Your task to perform on an android device: toggle translation in the chrome app Image 0: 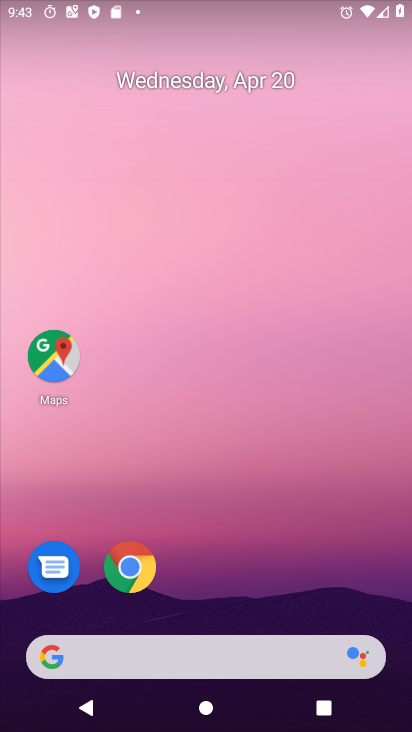
Step 0: drag from (228, 454) to (261, 200)
Your task to perform on an android device: toggle translation in the chrome app Image 1: 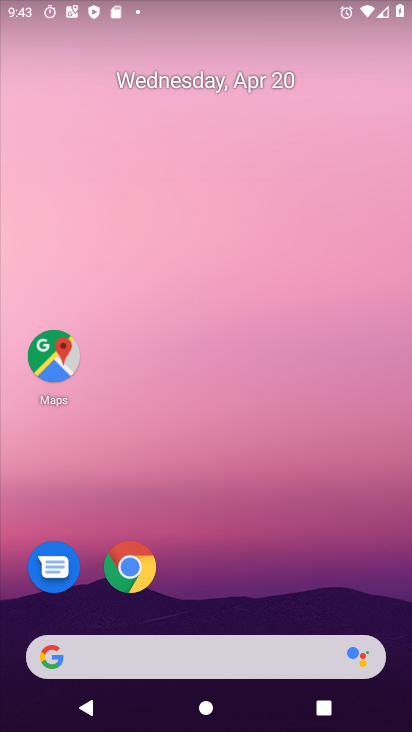
Step 1: drag from (258, 593) to (281, 160)
Your task to perform on an android device: toggle translation in the chrome app Image 2: 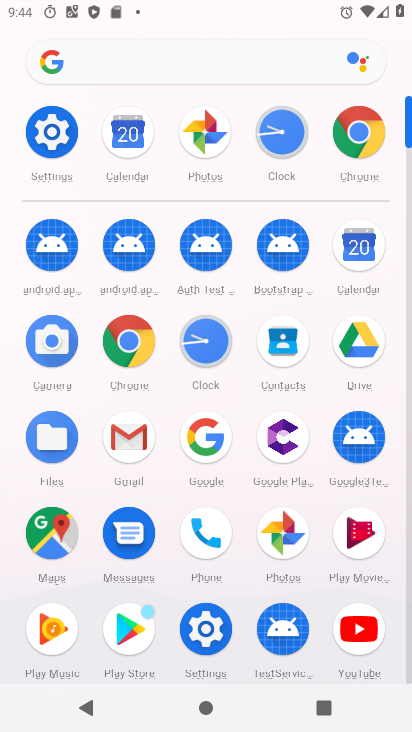
Step 2: click (361, 124)
Your task to perform on an android device: toggle translation in the chrome app Image 3: 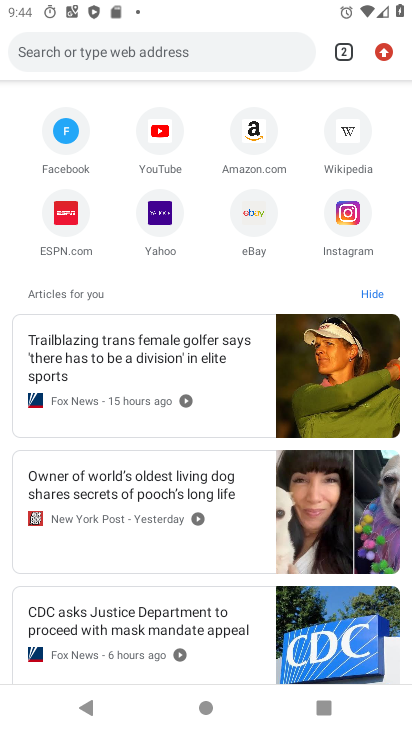
Step 3: click (378, 55)
Your task to perform on an android device: toggle translation in the chrome app Image 4: 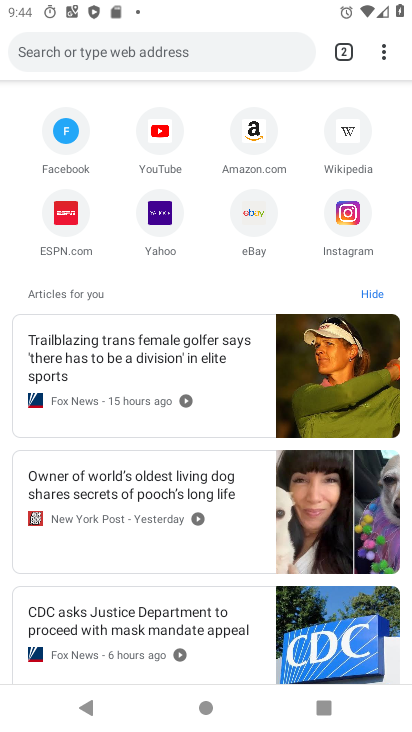
Step 4: click (373, 58)
Your task to perform on an android device: toggle translation in the chrome app Image 5: 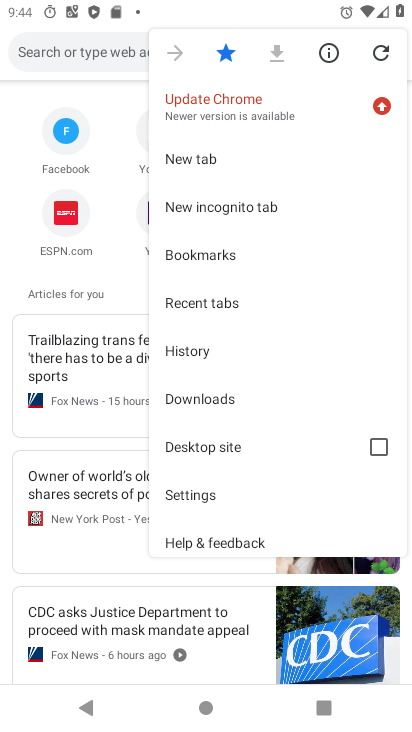
Step 5: click (214, 491)
Your task to perform on an android device: toggle translation in the chrome app Image 6: 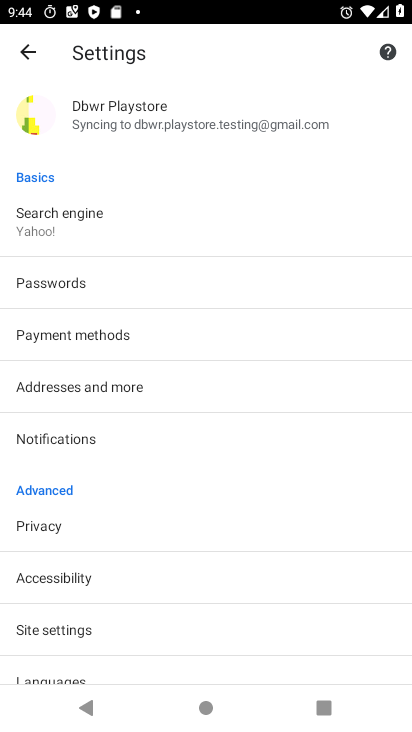
Step 6: drag from (87, 636) to (151, 360)
Your task to perform on an android device: toggle translation in the chrome app Image 7: 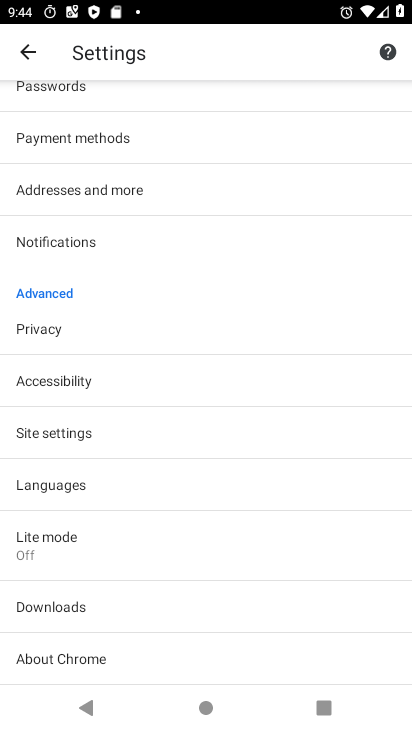
Step 7: click (85, 483)
Your task to perform on an android device: toggle translation in the chrome app Image 8: 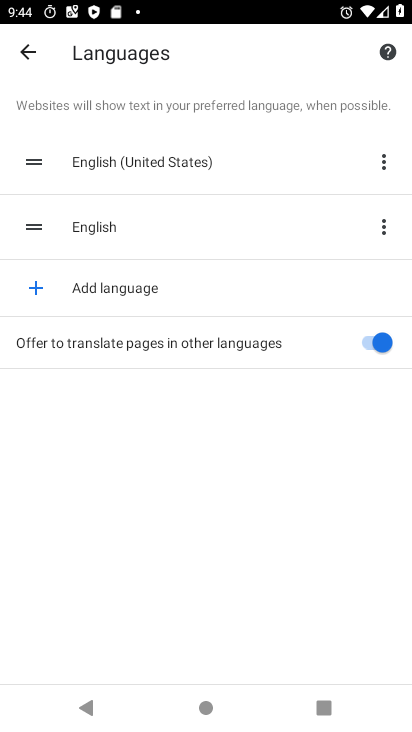
Step 8: click (369, 342)
Your task to perform on an android device: toggle translation in the chrome app Image 9: 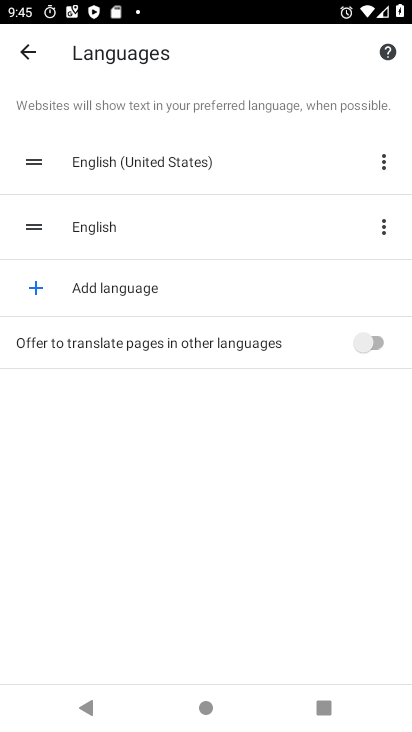
Step 9: task complete